Your task to perform on an android device: turn on wifi Image 0: 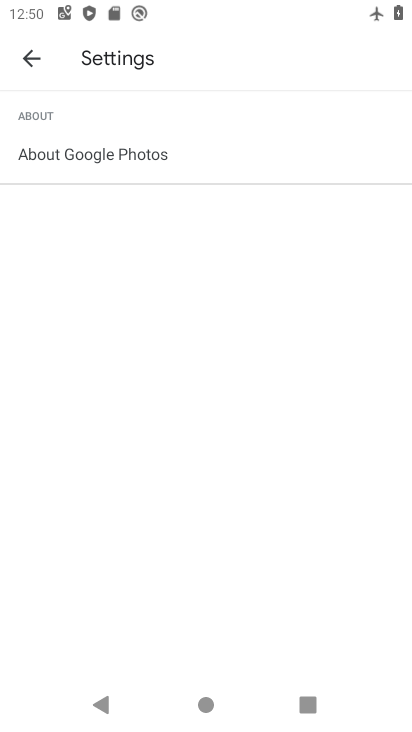
Step 0: press home button
Your task to perform on an android device: turn on wifi Image 1: 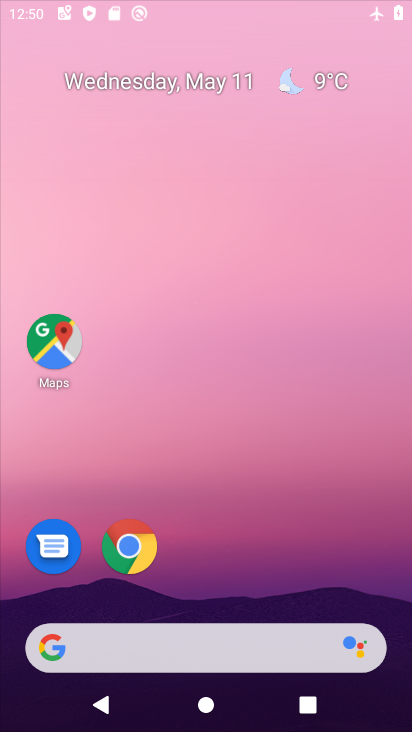
Step 1: press home button
Your task to perform on an android device: turn on wifi Image 2: 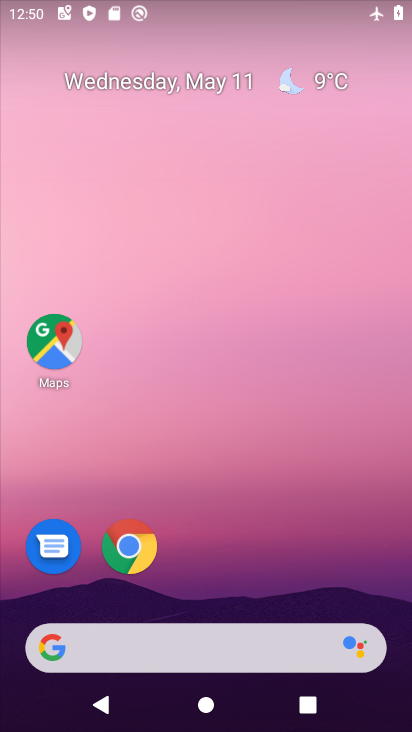
Step 2: drag from (321, 626) to (298, 60)
Your task to perform on an android device: turn on wifi Image 3: 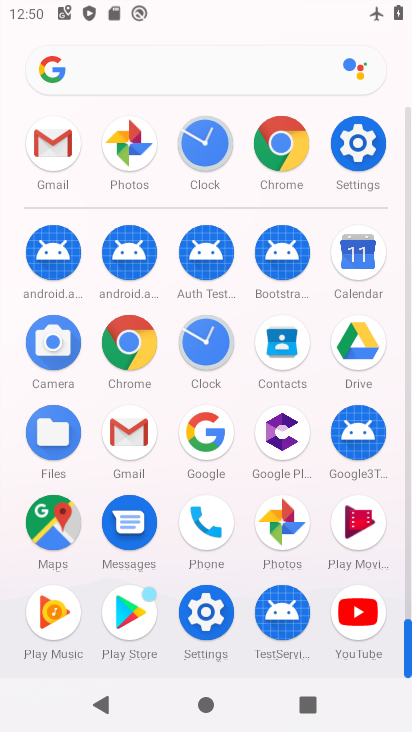
Step 3: click (365, 145)
Your task to perform on an android device: turn on wifi Image 4: 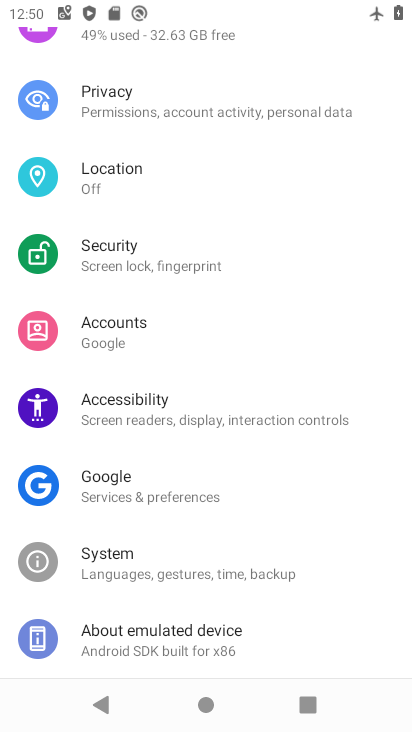
Step 4: drag from (334, 146) to (331, 575)
Your task to perform on an android device: turn on wifi Image 5: 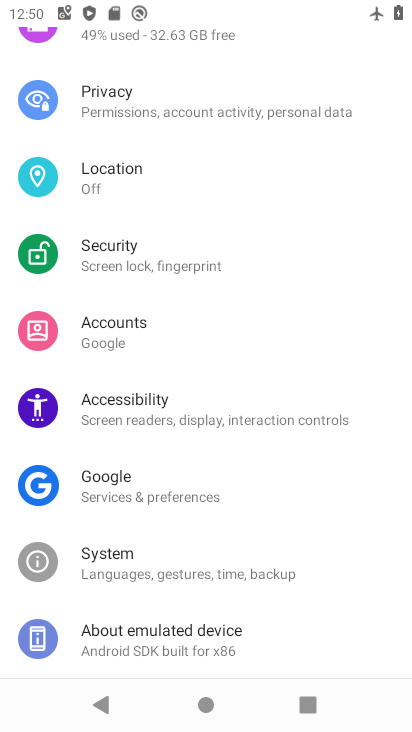
Step 5: drag from (301, 116) to (281, 526)
Your task to perform on an android device: turn on wifi Image 6: 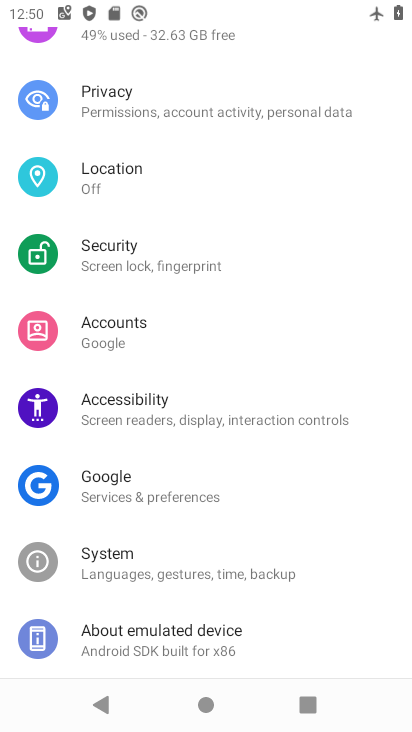
Step 6: drag from (312, 5) to (272, 454)
Your task to perform on an android device: turn on wifi Image 7: 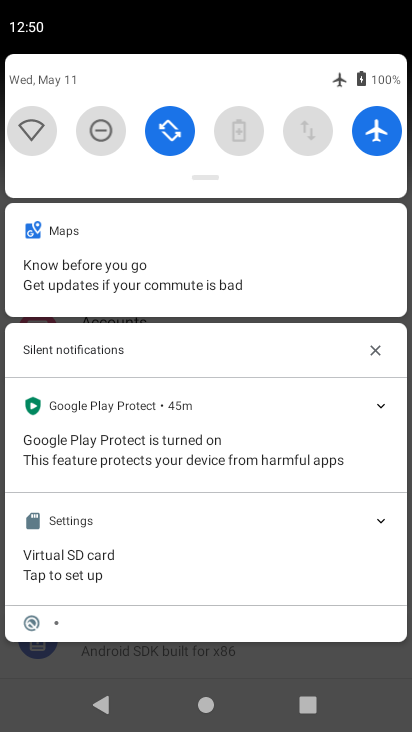
Step 7: click (26, 109)
Your task to perform on an android device: turn on wifi Image 8: 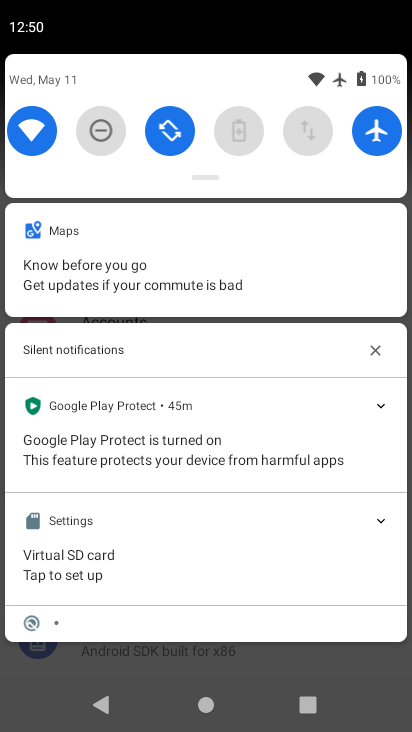
Step 8: task complete